Your task to perform on an android device: turn on showing notifications on the lock screen Image 0: 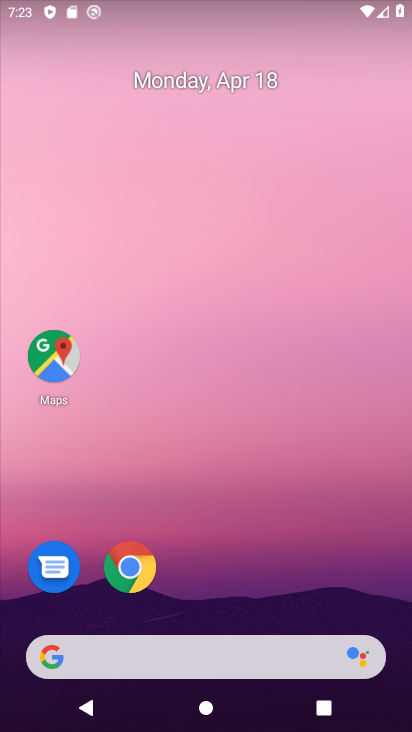
Step 0: drag from (240, 669) to (336, 115)
Your task to perform on an android device: turn on showing notifications on the lock screen Image 1: 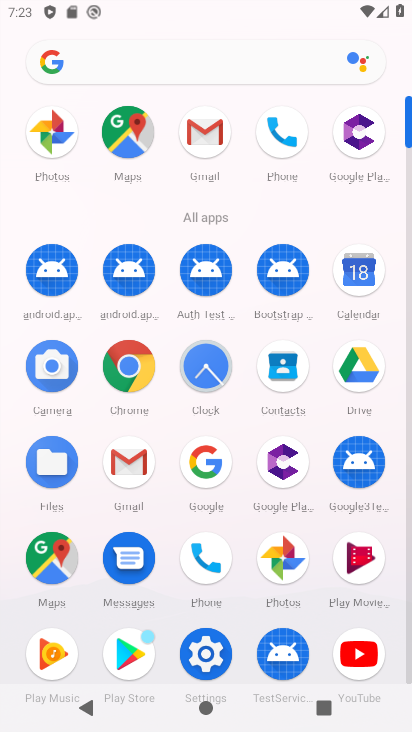
Step 1: click (214, 659)
Your task to perform on an android device: turn on showing notifications on the lock screen Image 2: 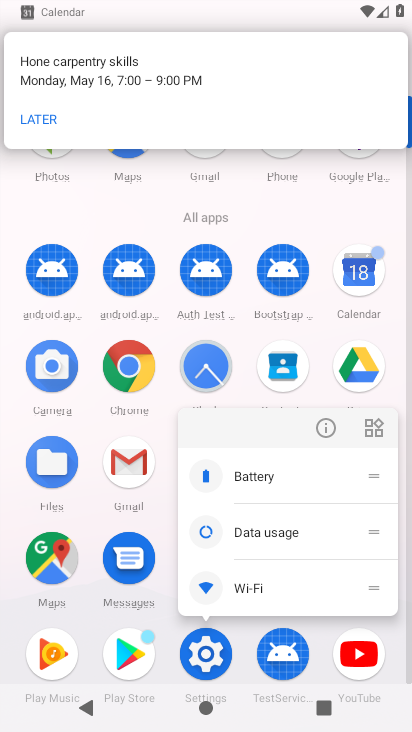
Step 2: click (208, 645)
Your task to perform on an android device: turn on showing notifications on the lock screen Image 3: 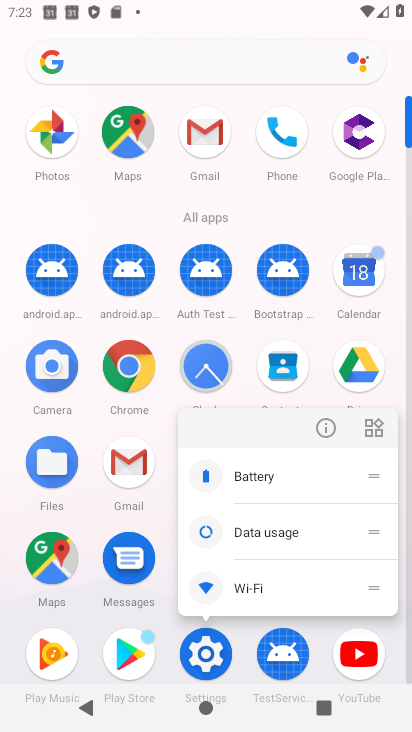
Step 3: click (196, 658)
Your task to perform on an android device: turn on showing notifications on the lock screen Image 4: 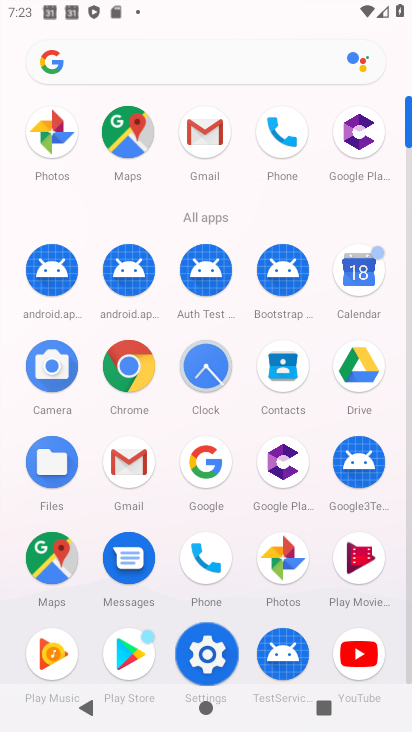
Step 4: click (201, 653)
Your task to perform on an android device: turn on showing notifications on the lock screen Image 5: 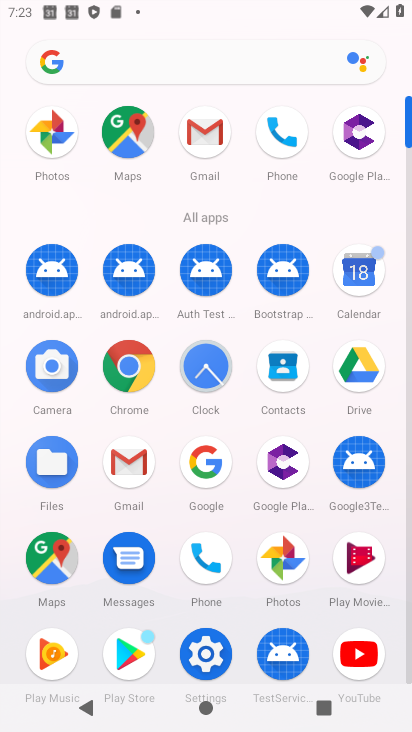
Step 5: click (201, 653)
Your task to perform on an android device: turn on showing notifications on the lock screen Image 6: 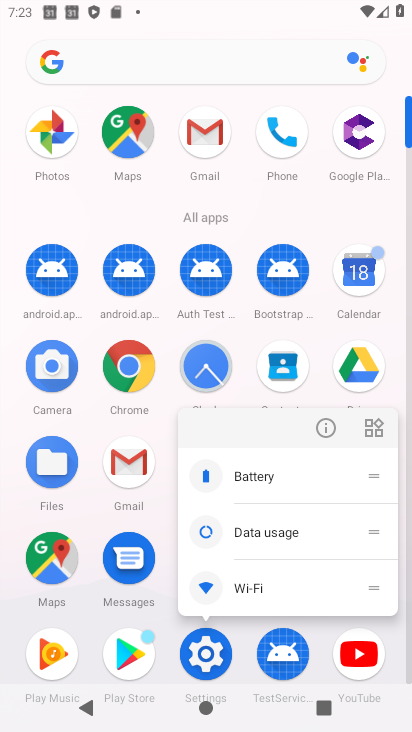
Step 6: click (218, 665)
Your task to perform on an android device: turn on showing notifications on the lock screen Image 7: 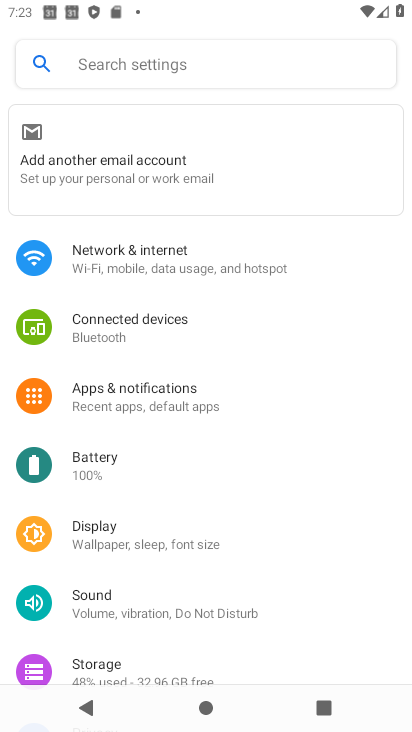
Step 7: click (162, 60)
Your task to perform on an android device: turn on showing notifications on the lock screen Image 8: 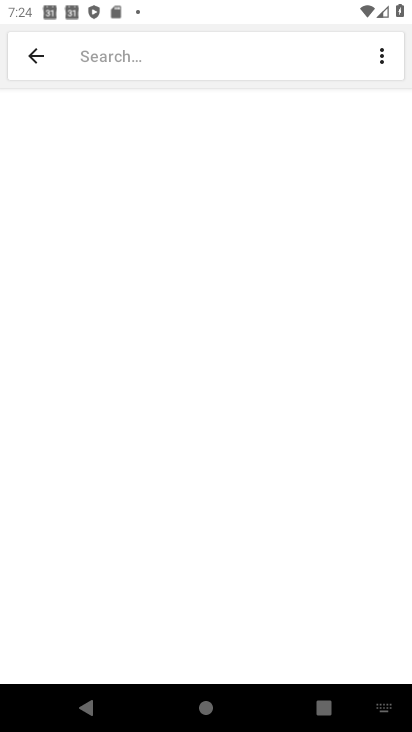
Step 8: click (385, 712)
Your task to perform on an android device: turn on showing notifications on the lock screen Image 9: 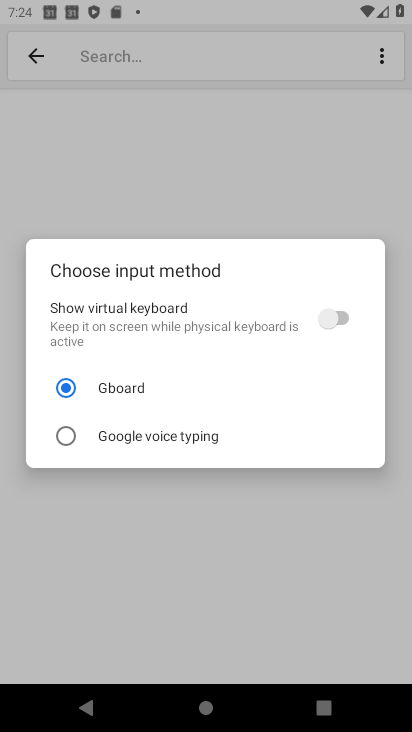
Step 9: click (387, 712)
Your task to perform on an android device: turn on showing notifications on the lock screen Image 10: 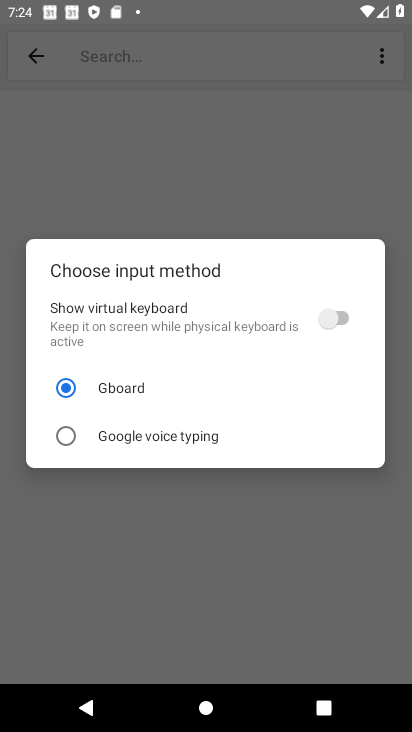
Step 10: click (338, 317)
Your task to perform on an android device: turn on showing notifications on the lock screen Image 11: 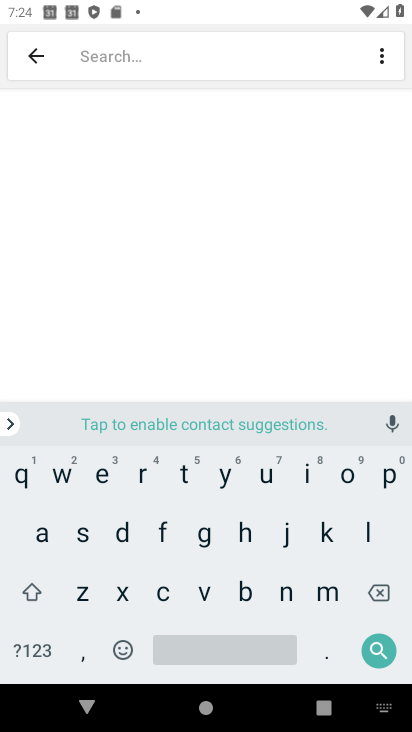
Step 11: click (367, 533)
Your task to perform on an android device: turn on showing notifications on the lock screen Image 12: 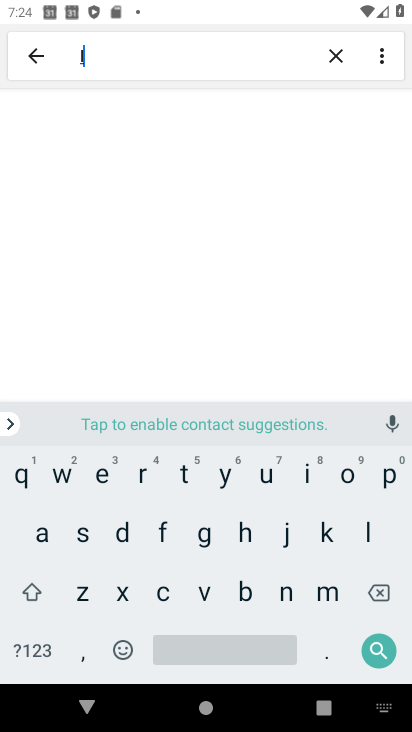
Step 12: click (350, 475)
Your task to perform on an android device: turn on showing notifications on the lock screen Image 13: 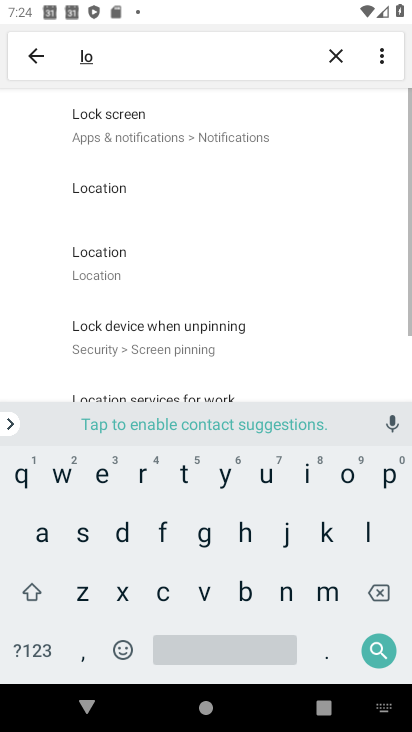
Step 13: click (160, 584)
Your task to perform on an android device: turn on showing notifications on the lock screen Image 14: 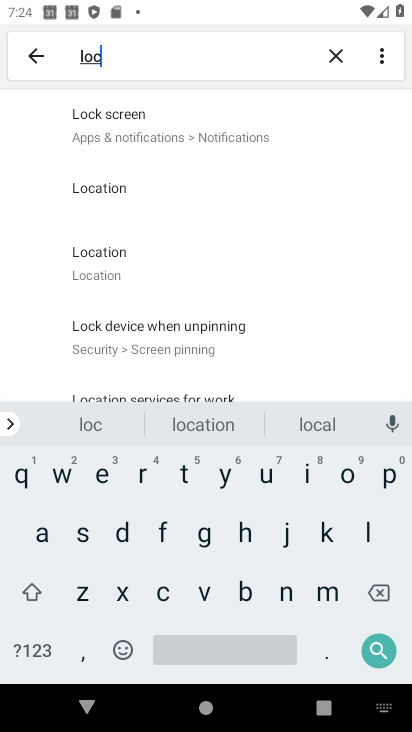
Step 14: click (149, 135)
Your task to perform on an android device: turn on showing notifications on the lock screen Image 15: 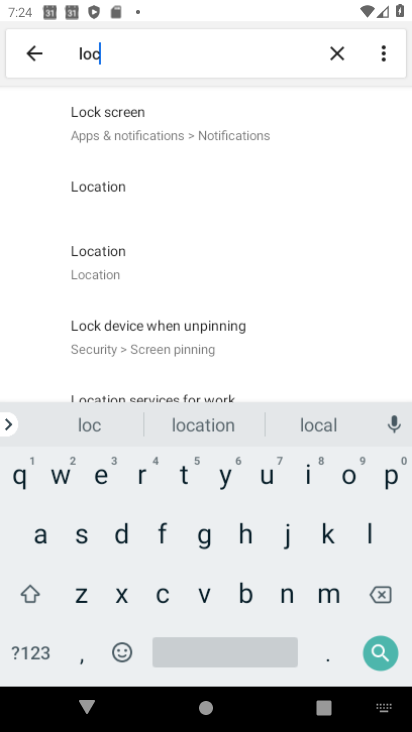
Step 15: click (156, 134)
Your task to perform on an android device: turn on showing notifications on the lock screen Image 16: 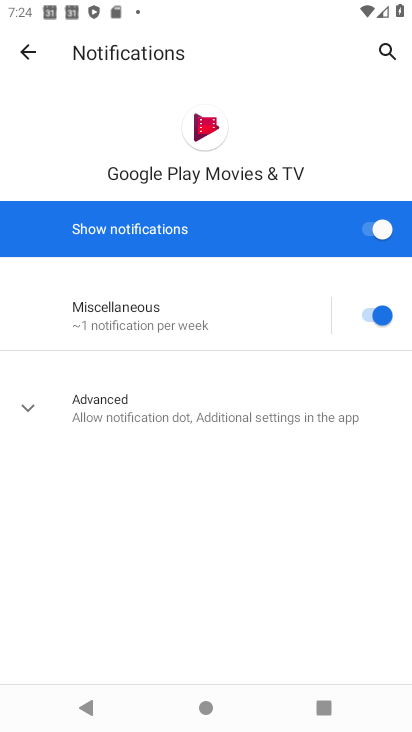
Step 16: click (33, 59)
Your task to perform on an android device: turn on showing notifications on the lock screen Image 17: 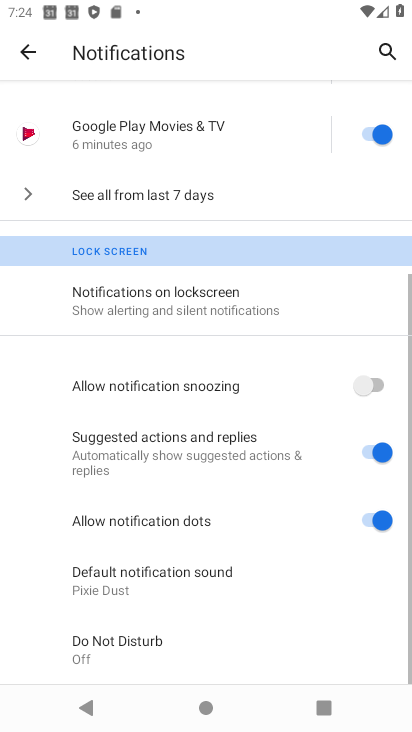
Step 17: click (142, 292)
Your task to perform on an android device: turn on showing notifications on the lock screen Image 18: 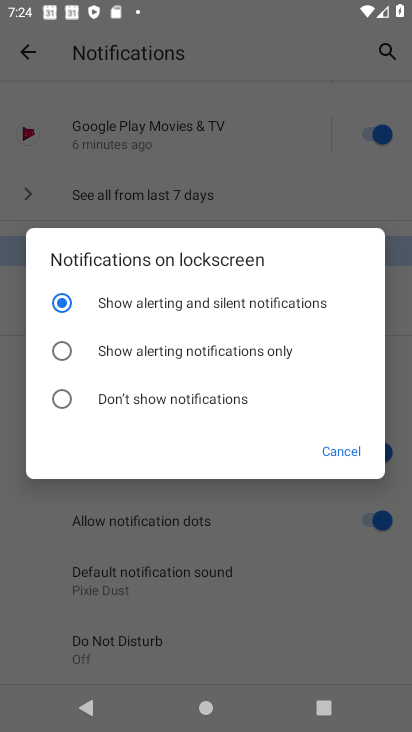
Step 18: task complete